Your task to perform on an android device: toggle translation in the chrome app Image 0: 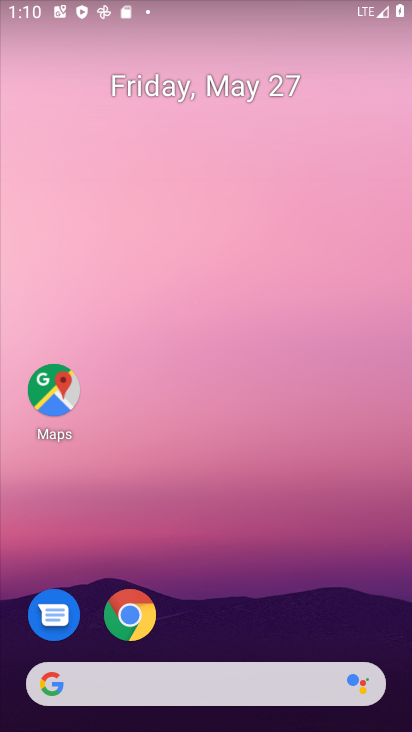
Step 0: drag from (317, 694) to (390, 78)
Your task to perform on an android device: toggle translation in the chrome app Image 1: 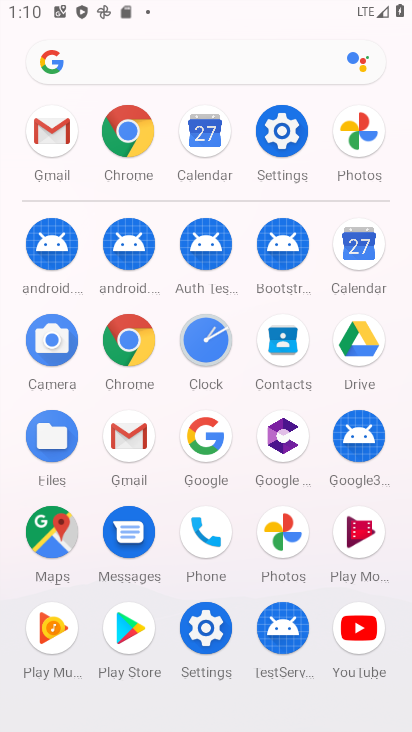
Step 1: press home button
Your task to perform on an android device: toggle translation in the chrome app Image 2: 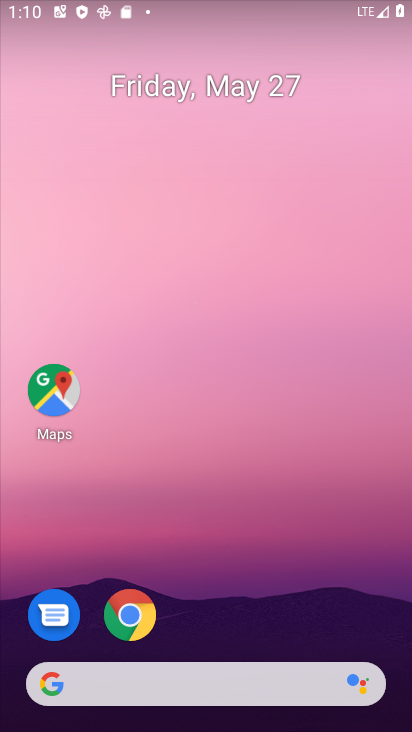
Step 2: drag from (221, 642) to (320, 188)
Your task to perform on an android device: toggle translation in the chrome app Image 3: 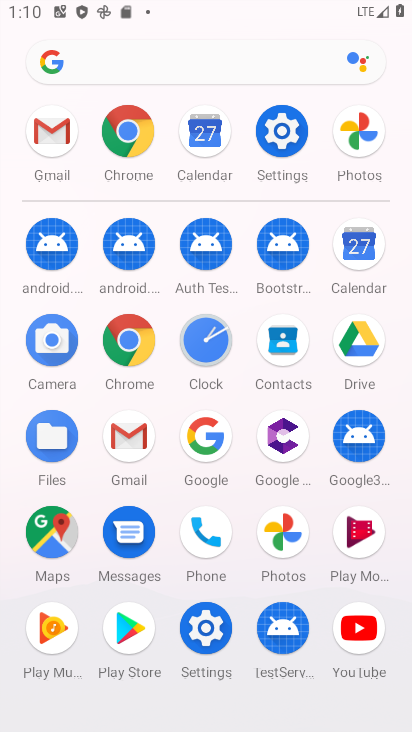
Step 3: click (137, 338)
Your task to perform on an android device: toggle translation in the chrome app Image 4: 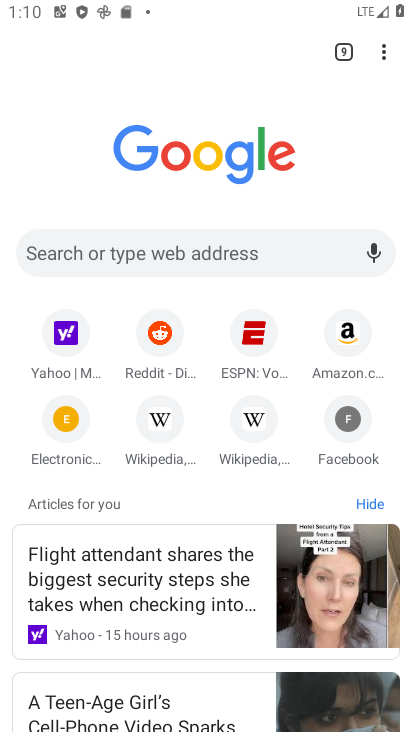
Step 4: drag from (379, 54) to (233, 436)
Your task to perform on an android device: toggle translation in the chrome app Image 5: 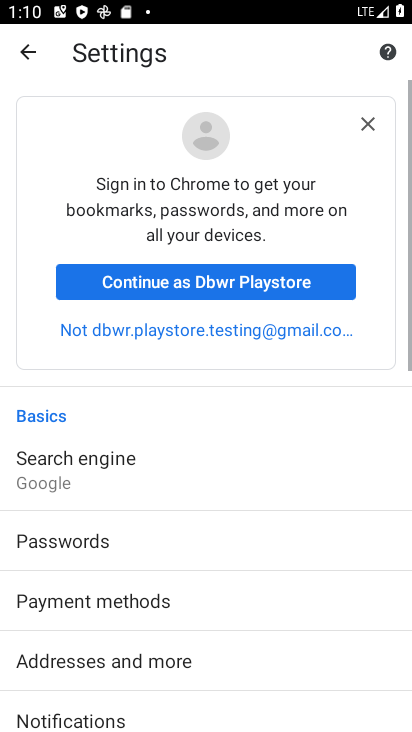
Step 5: drag from (178, 612) to (229, 97)
Your task to perform on an android device: toggle translation in the chrome app Image 6: 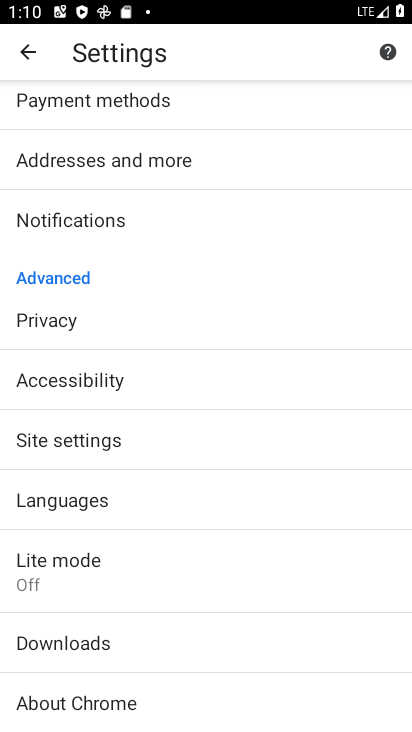
Step 6: click (101, 506)
Your task to perform on an android device: toggle translation in the chrome app Image 7: 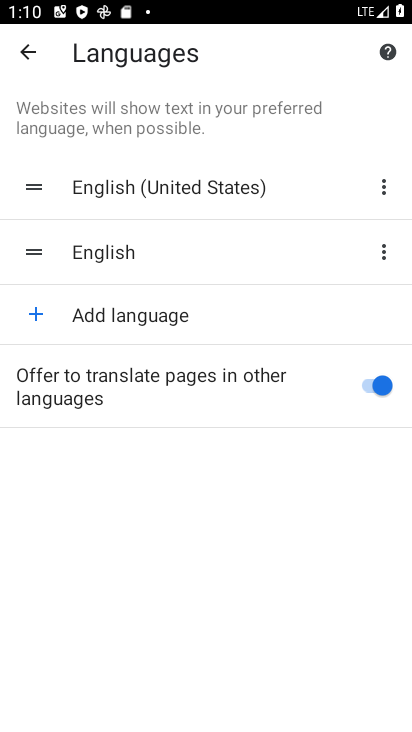
Step 7: click (369, 390)
Your task to perform on an android device: toggle translation in the chrome app Image 8: 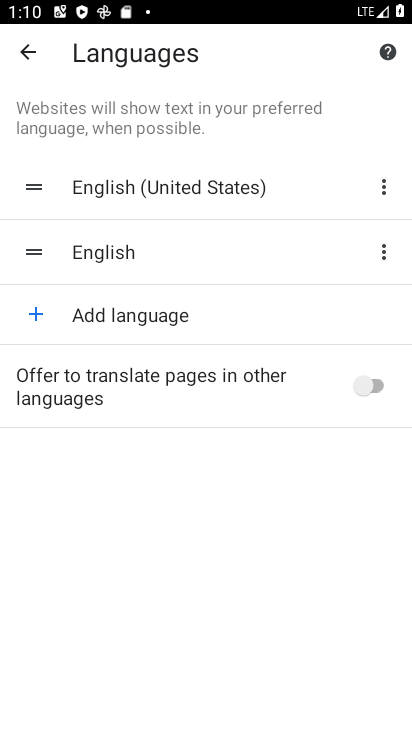
Step 8: task complete